Your task to perform on an android device: turn off picture-in-picture Image 0: 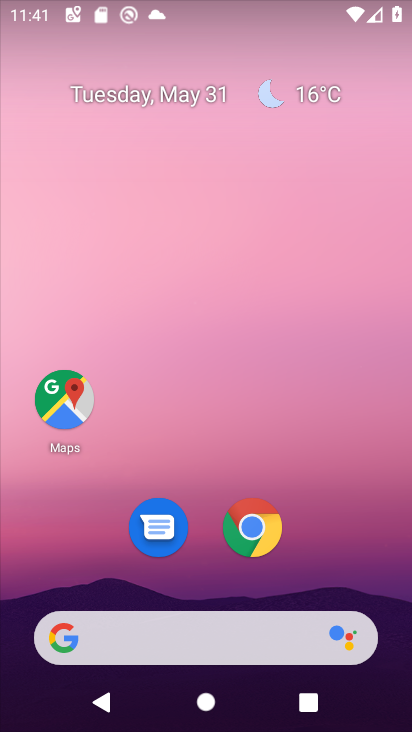
Step 0: click (254, 528)
Your task to perform on an android device: turn off picture-in-picture Image 1: 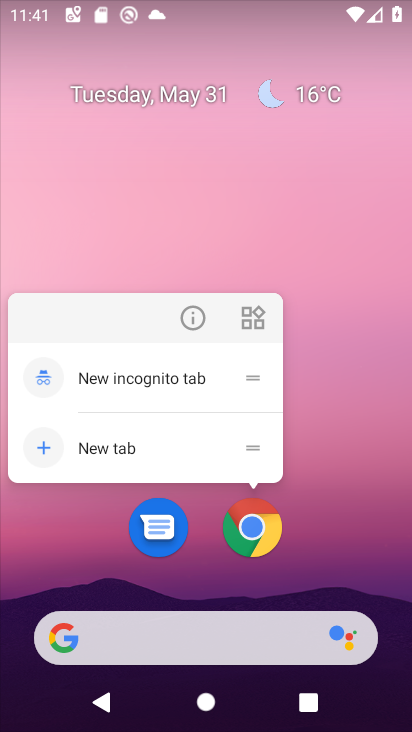
Step 1: click (195, 312)
Your task to perform on an android device: turn off picture-in-picture Image 2: 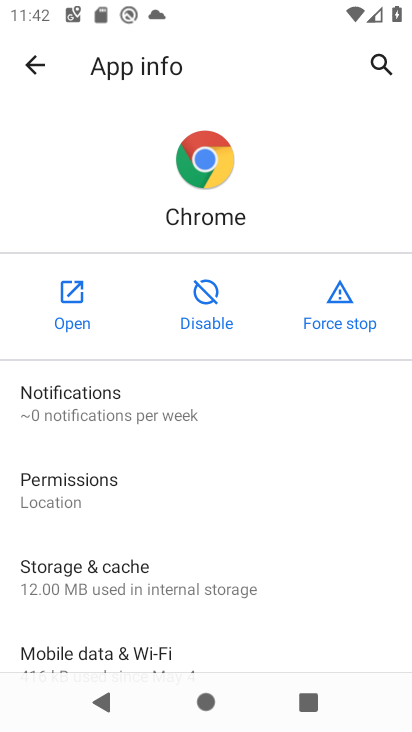
Step 2: drag from (181, 567) to (172, 35)
Your task to perform on an android device: turn off picture-in-picture Image 3: 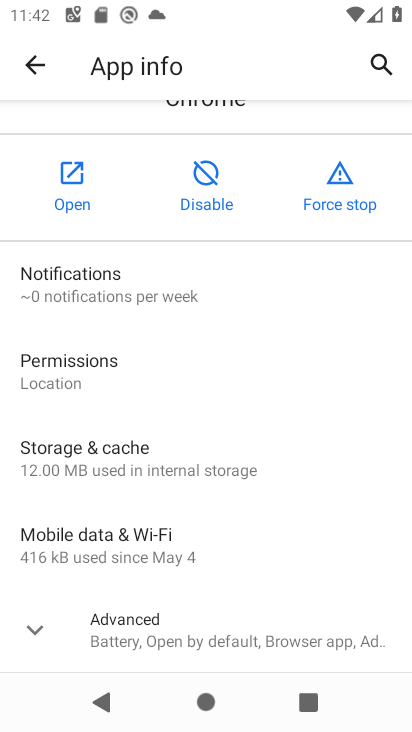
Step 3: click (25, 640)
Your task to perform on an android device: turn off picture-in-picture Image 4: 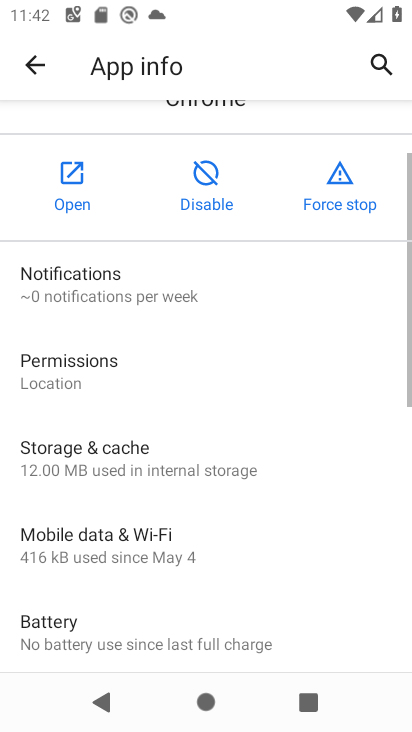
Step 4: drag from (132, 614) to (173, 52)
Your task to perform on an android device: turn off picture-in-picture Image 5: 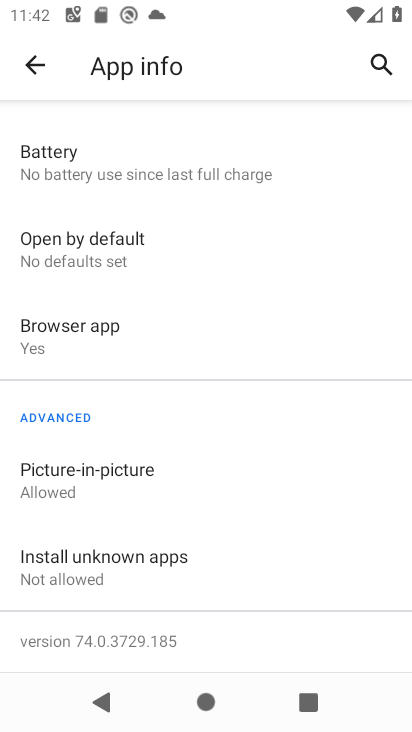
Step 5: click (93, 471)
Your task to perform on an android device: turn off picture-in-picture Image 6: 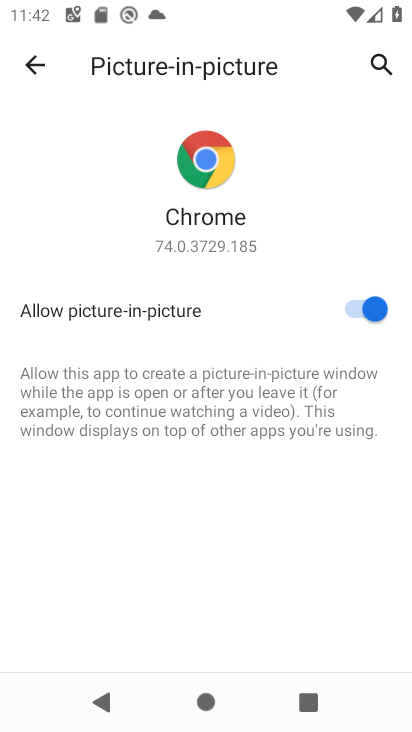
Step 6: click (361, 310)
Your task to perform on an android device: turn off picture-in-picture Image 7: 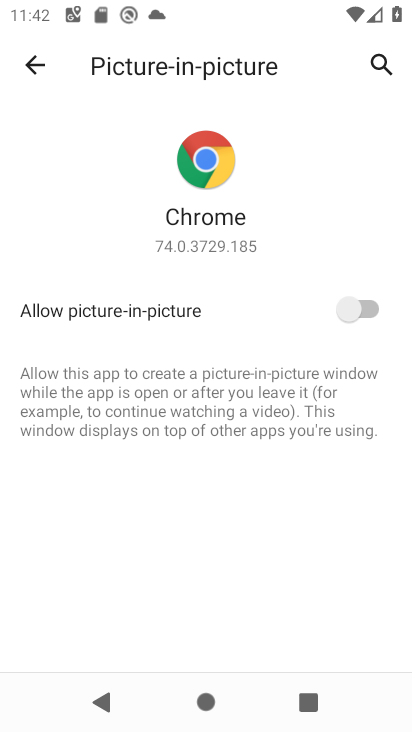
Step 7: task complete